Your task to perform on an android device: toggle priority inbox in the gmail app Image 0: 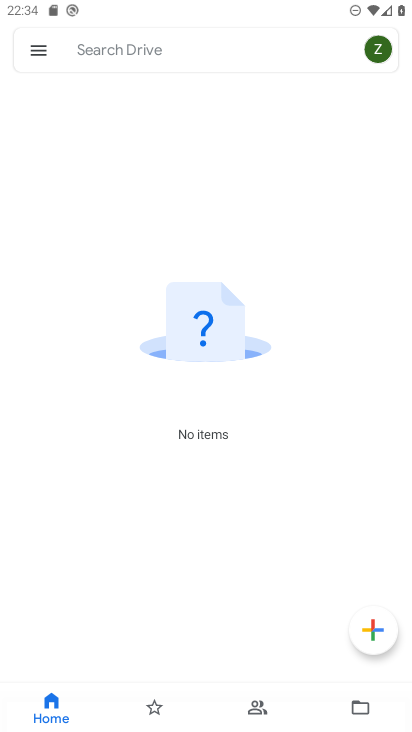
Step 0: press home button
Your task to perform on an android device: toggle priority inbox in the gmail app Image 1: 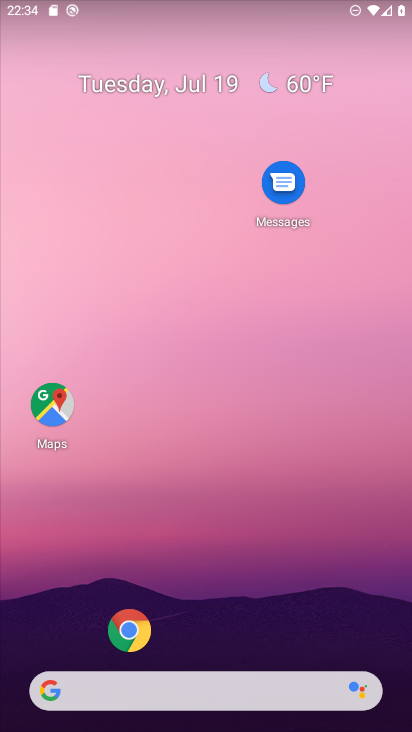
Step 1: drag from (43, 671) to (190, 140)
Your task to perform on an android device: toggle priority inbox in the gmail app Image 2: 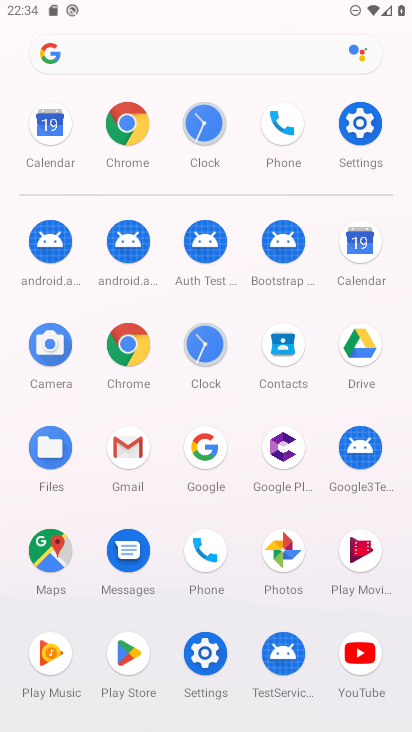
Step 2: click (140, 460)
Your task to perform on an android device: toggle priority inbox in the gmail app Image 3: 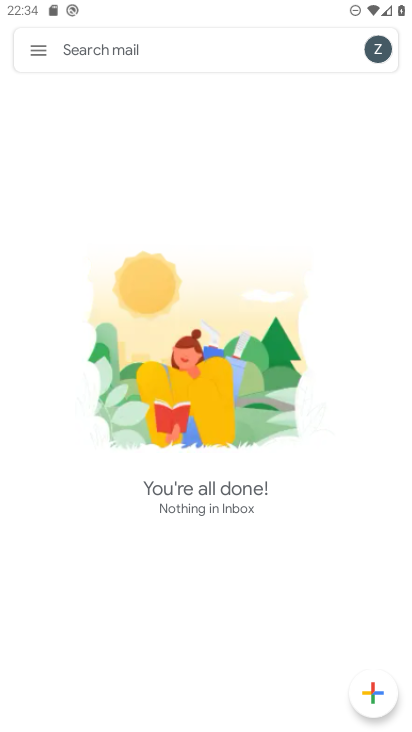
Step 3: click (28, 44)
Your task to perform on an android device: toggle priority inbox in the gmail app Image 4: 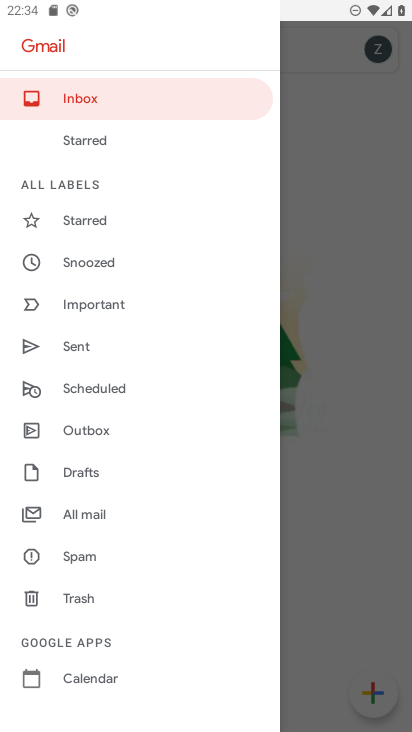
Step 4: drag from (157, 616) to (178, 298)
Your task to perform on an android device: toggle priority inbox in the gmail app Image 5: 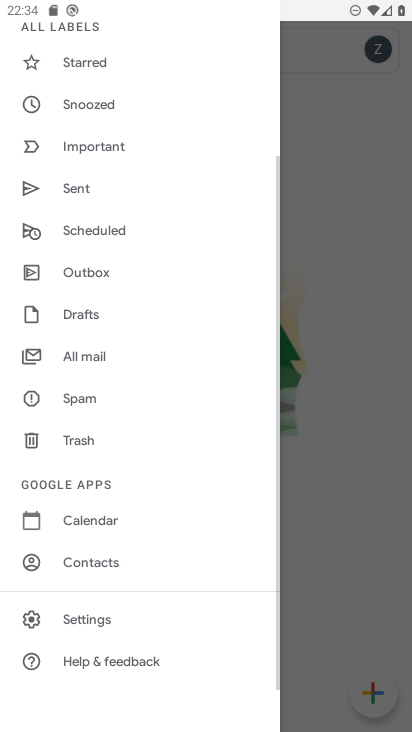
Step 5: click (80, 623)
Your task to perform on an android device: toggle priority inbox in the gmail app Image 6: 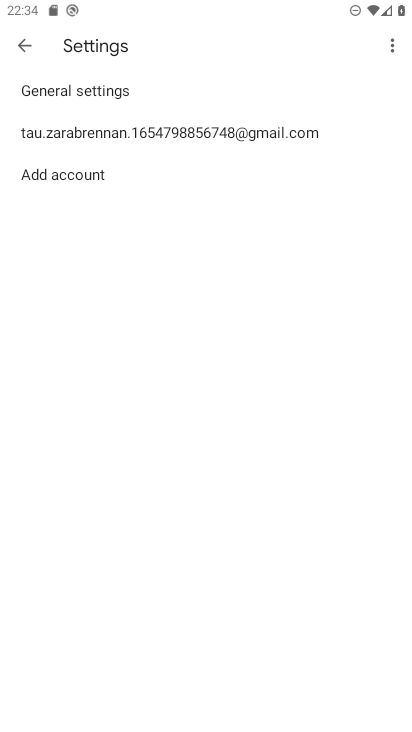
Step 6: click (67, 128)
Your task to perform on an android device: toggle priority inbox in the gmail app Image 7: 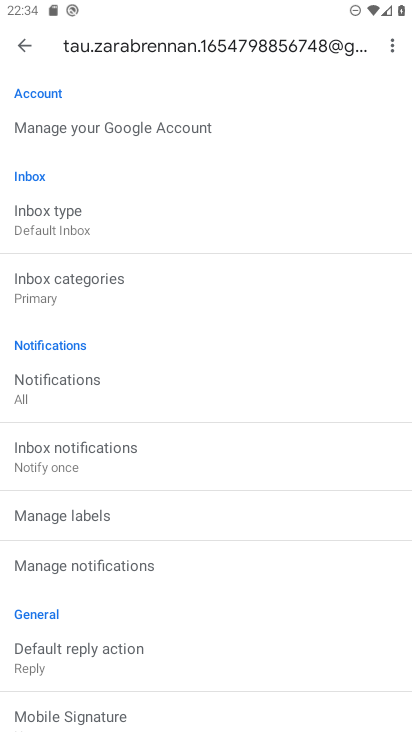
Step 7: click (72, 207)
Your task to perform on an android device: toggle priority inbox in the gmail app Image 8: 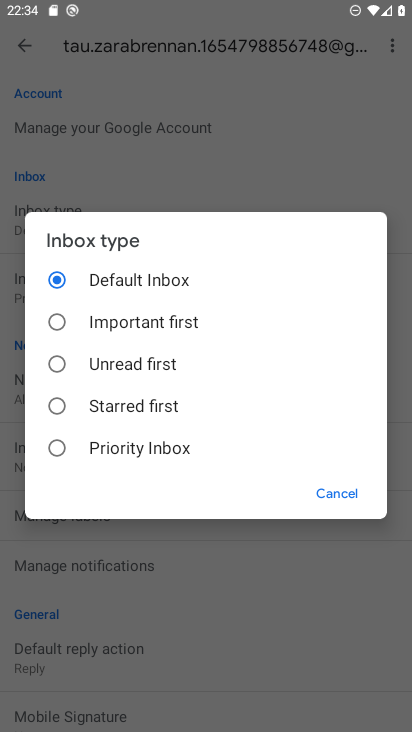
Step 8: click (68, 444)
Your task to perform on an android device: toggle priority inbox in the gmail app Image 9: 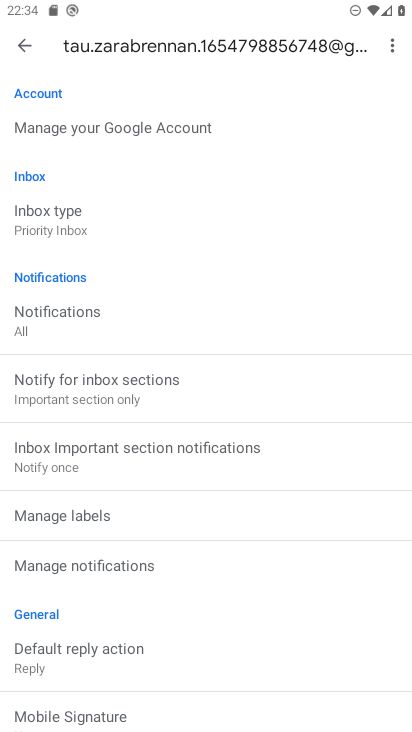
Step 9: task complete